Your task to perform on an android device: check android version Image 0: 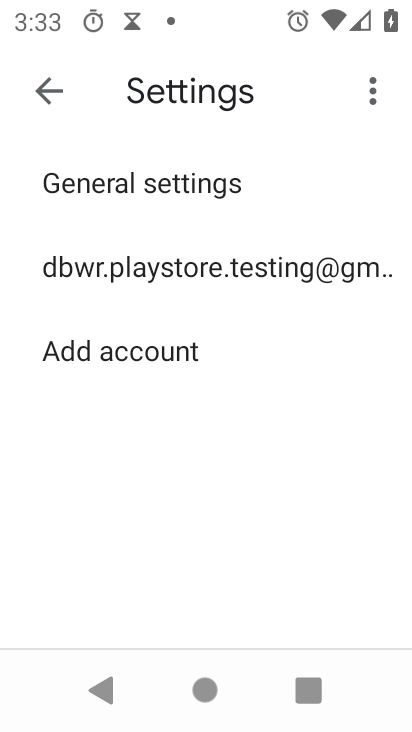
Step 0: press home button
Your task to perform on an android device: check android version Image 1: 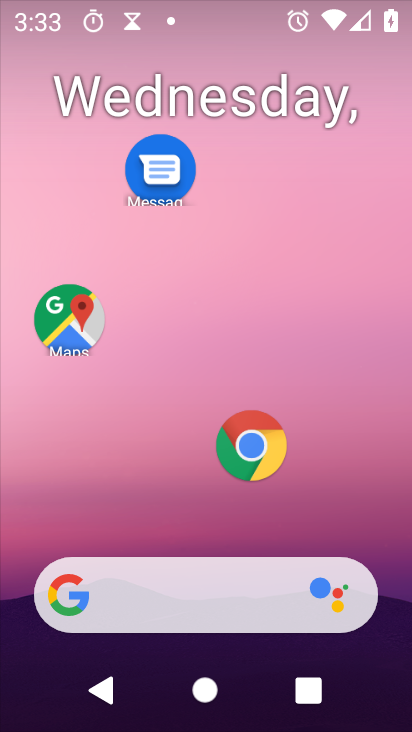
Step 1: drag from (73, 534) to (291, 163)
Your task to perform on an android device: check android version Image 2: 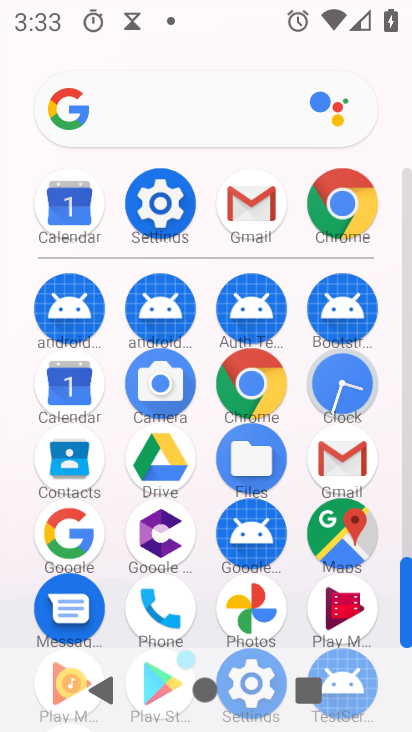
Step 2: click (166, 203)
Your task to perform on an android device: check android version Image 3: 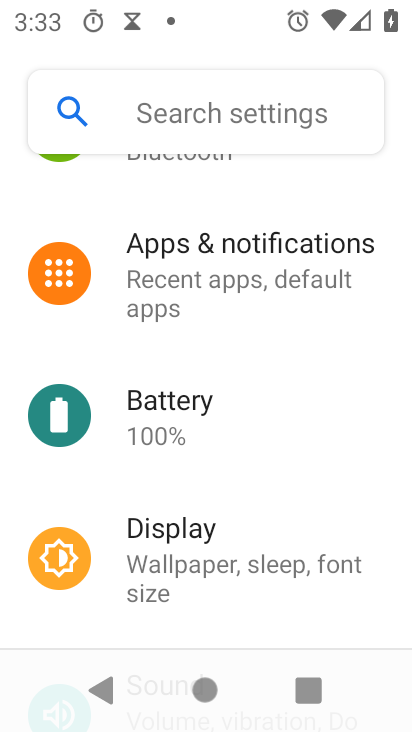
Step 3: drag from (36, 489) to (412, 113)
Your task to perform on an android device: check android version Image 4: 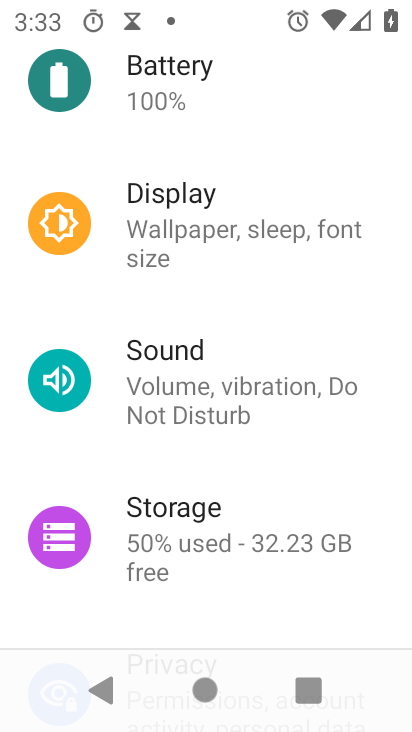
Step 4: drag from (1, 515) to (404, 224)
Your task to perform on an android device: check android version Image 5: 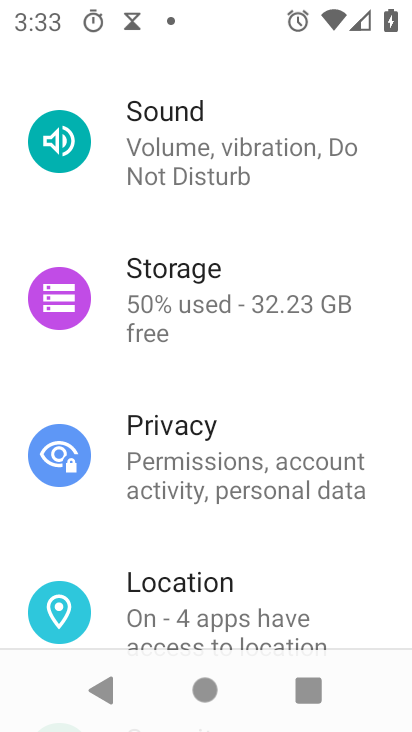
Step 5: drag from (62, 521) to (346, 157)
Your task to perform on an android device: check android version Image 6: 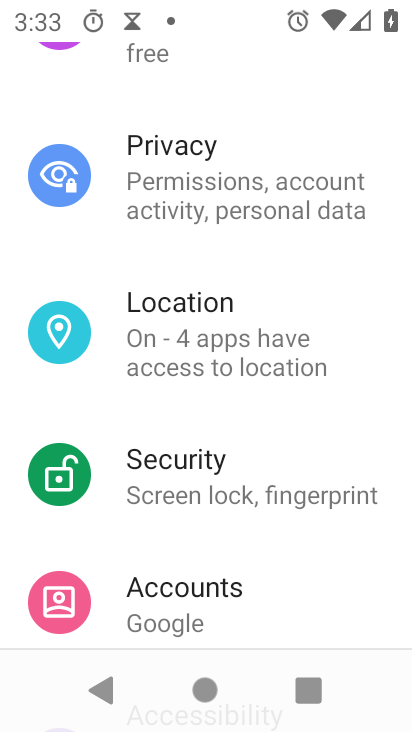
Step 6: drag from (79, 528) to (406, 228)
Your task to perform on an android device: check android version Image 7: 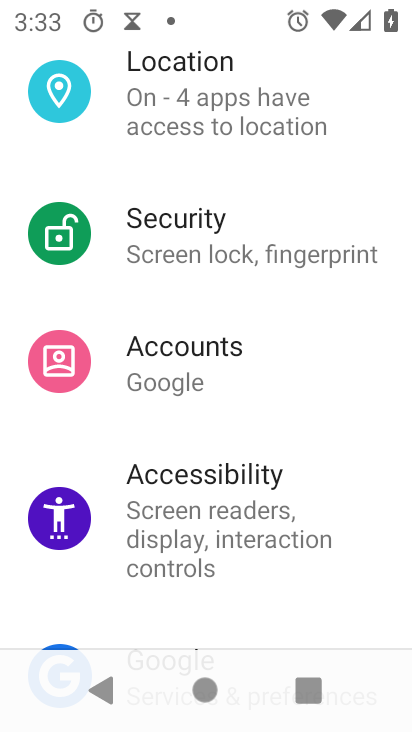
Step 7: drag from (17, 422) to (230, 122)
Your task to perform on an android device: check android version Image 8: 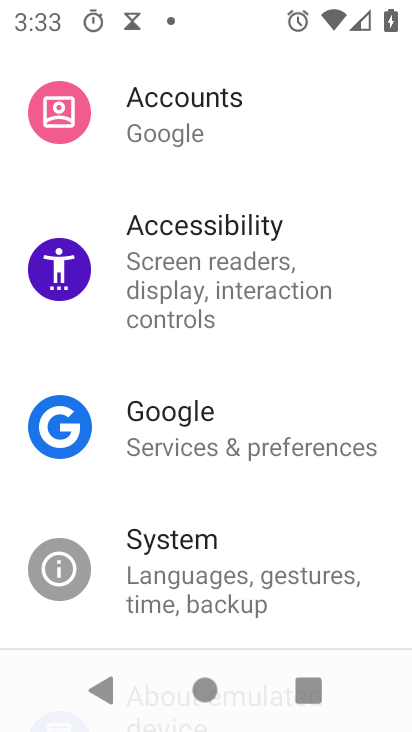
Step 8: drag from (40, 450) to (248, 107)
Your task to perform on an android device: check android version Image 9: 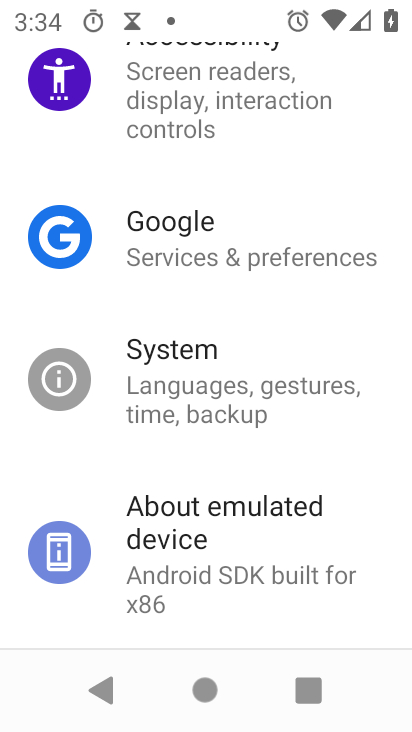
Step 9: click (81, 594)
Your task to perform on an android device: check android version Image 10: 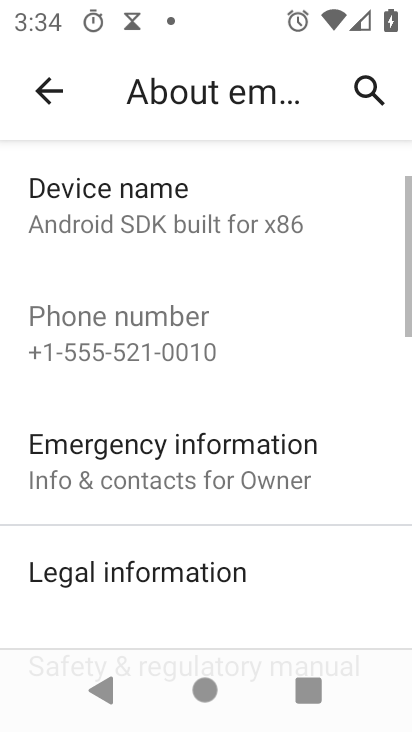
Step 10: drag from (81, 593) to (331, 103)
Your task to perform on an android device: check android version Image 11: 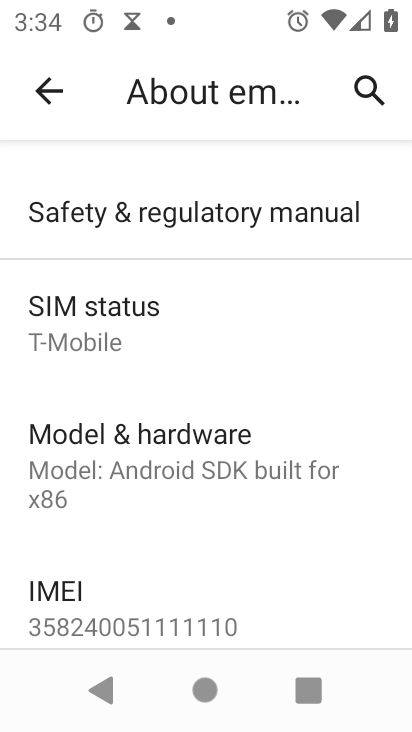
Step 11: drag from (33, 565) to (233, 236)
Your task to perform on an android device: check android version Image 12: 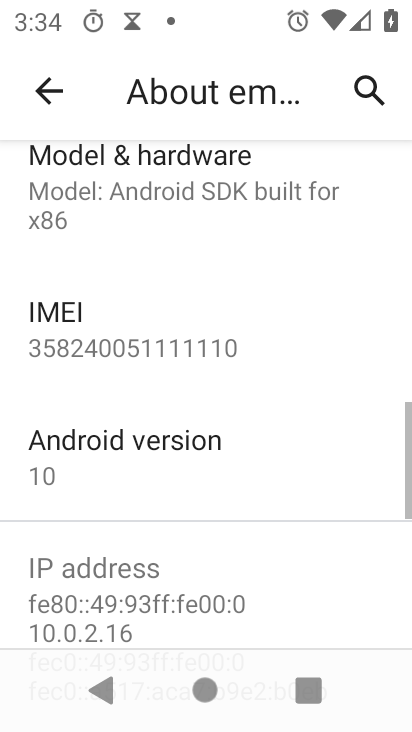
Step 12: click (46, 449)
Your task to perform on an android device: check android version Image 13: 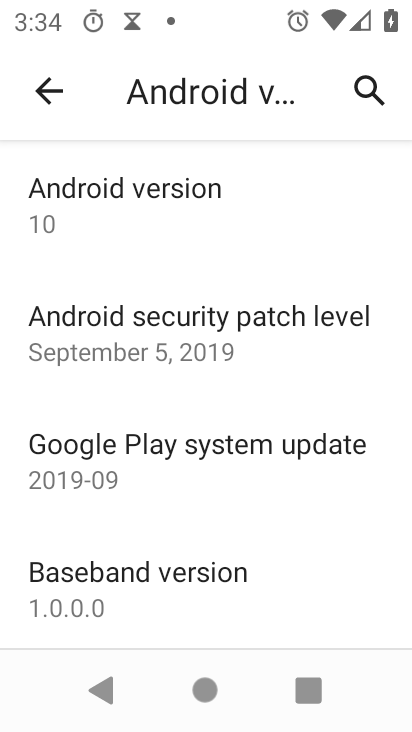
Step 13: task complete